Your task to perform on an android device: check data usage Image 0: 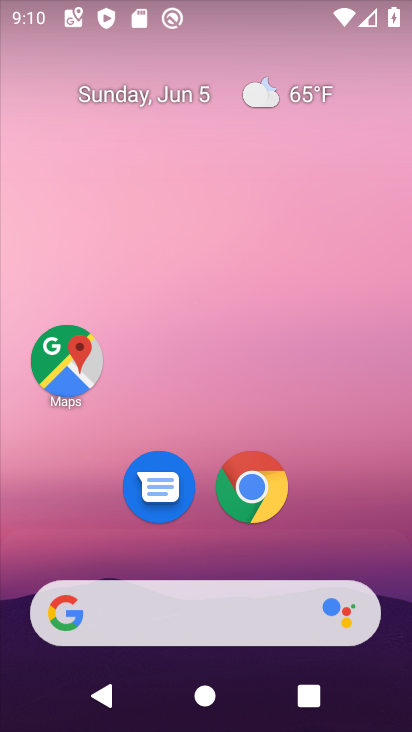
Step 0: drag from (98, 577) to (193, 55)
Your task to perform on an android device: check data usage Image 1: 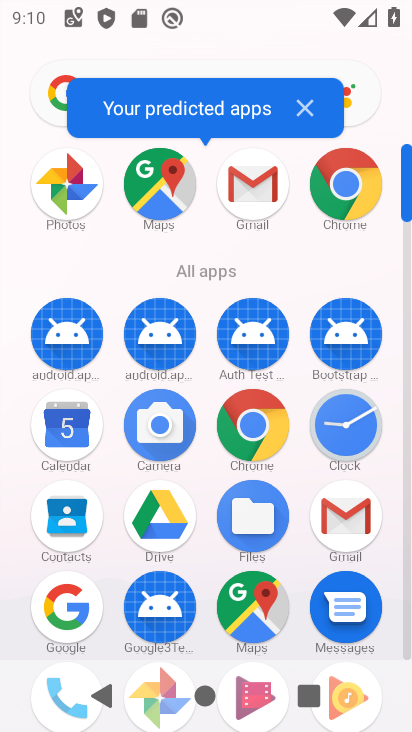
Step 1: drag from (226, 609) to (275, 348)
Your task to perform on an android device: check data usage Image 2: 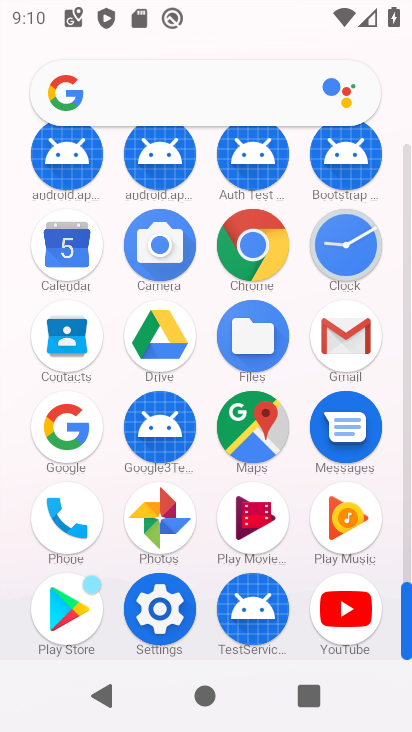
Step 2: click (163, 600)
Your task to perform on an android device: check data usage Image 3: 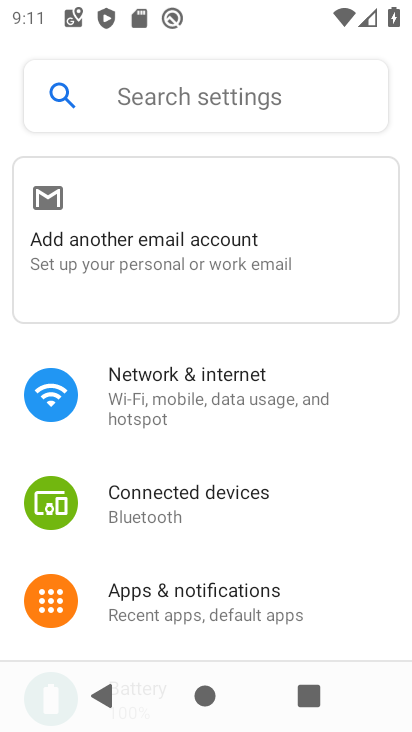
Step 3: click (296, 416)
Your task to perform on an android device: check data usage Image 4: 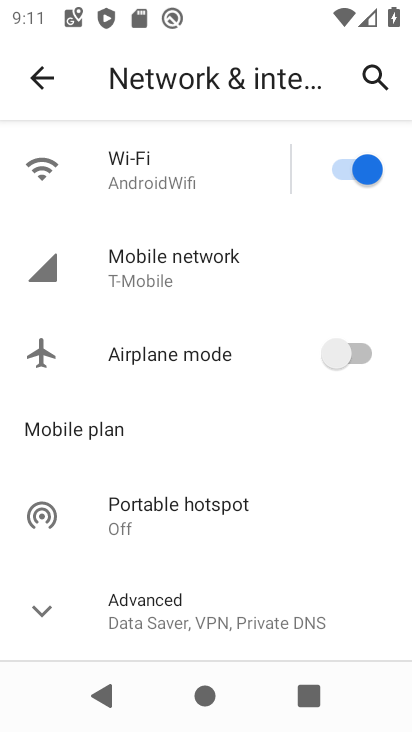
Step 4: click (253, 279)
Your task to perform on an android device: check data usage Image 5: 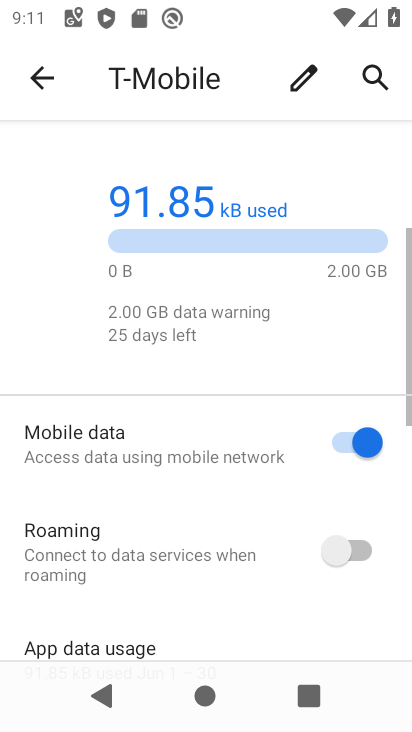
Step 5: drag from (144, 646) to (261, 255)
Your task to perform on an android device: check data usage Image 6: 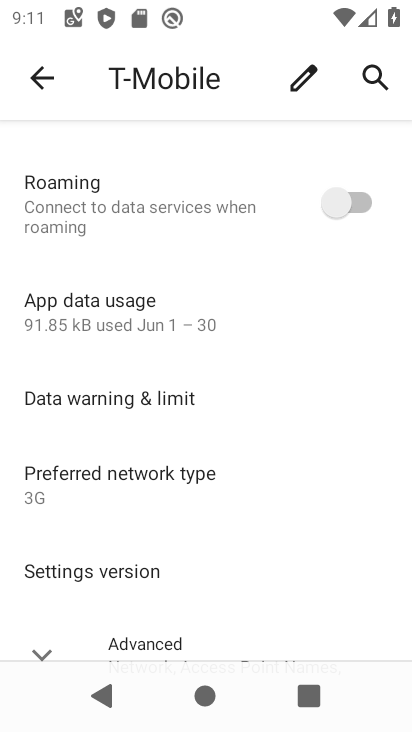
Step 6: click (193, 342)
Your task to perform on an android device: check data usage Image 7: 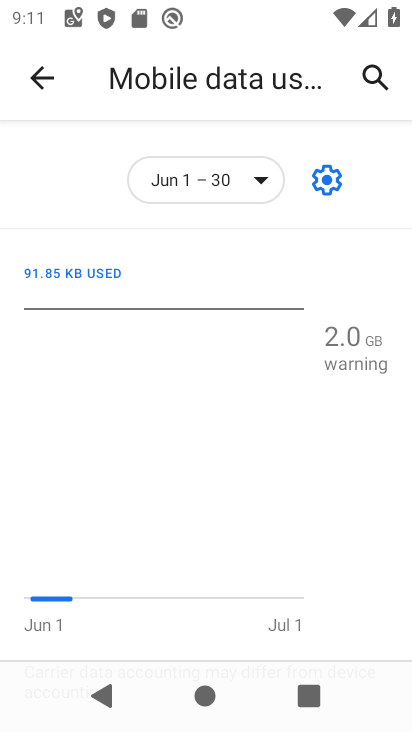
Step 7: task complete